Your task to perform on an android device: open app "Pinterest" (install if not already installed) Image 0: 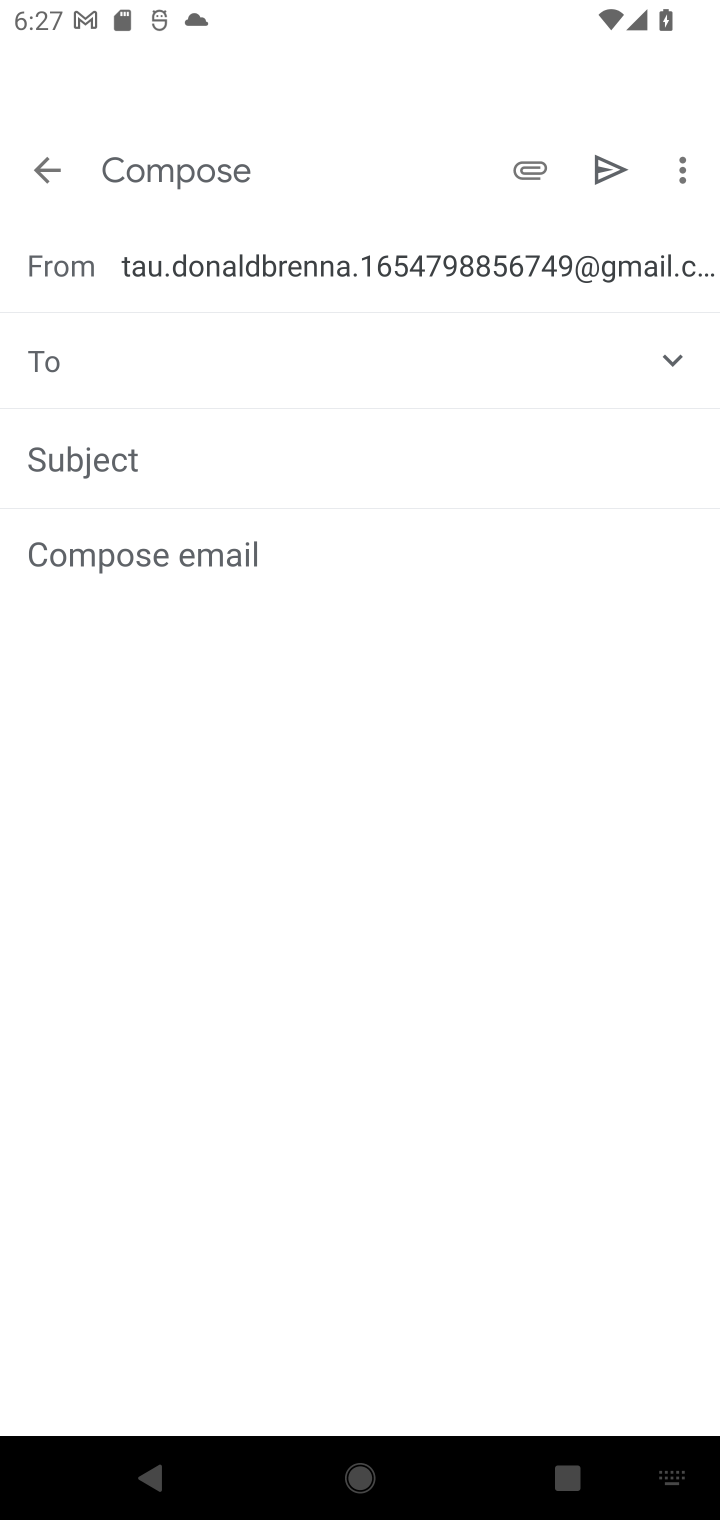
Step 0: press home button
Your task to perform on an android device: open app "Pinterest" (install if not already installed) Image 1: 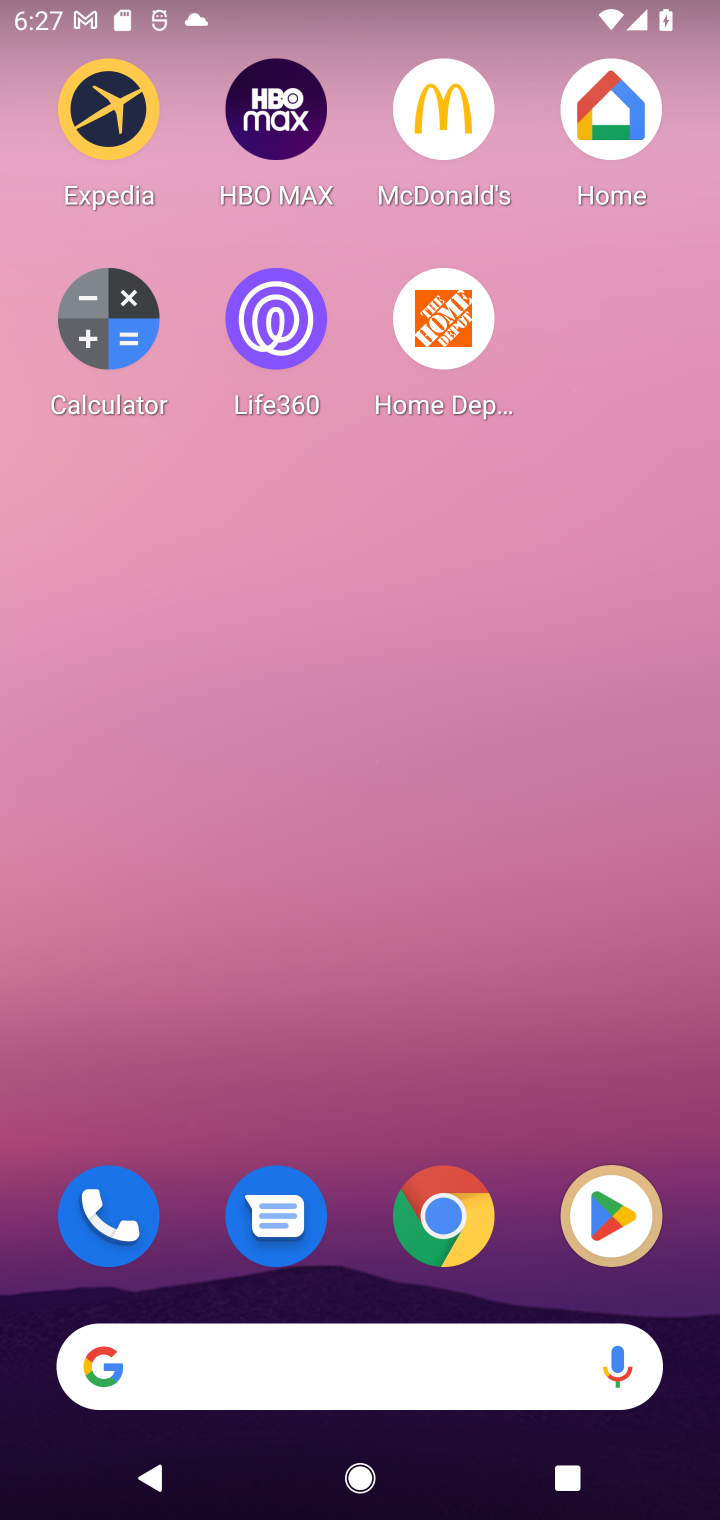
Step 1: drag from (288, 1292) to (312, 33)
Your task to perform on an android device: open app "Pinterest" (install if not already installed) Image 2: 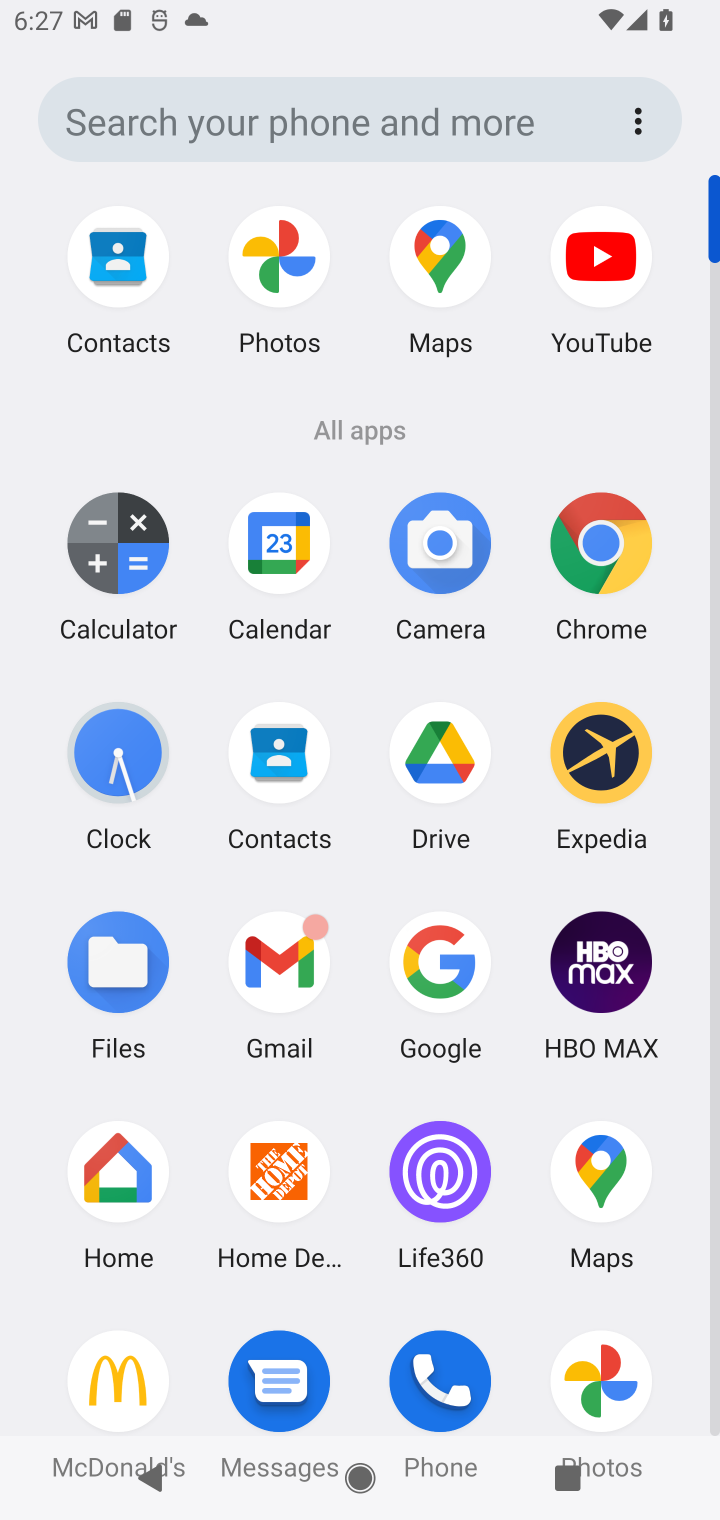
Step 2: drag from (203, 1142) to (203, 553)
Your task to perform on an android device: open app "Pinterest" (install if not already installed) Image 3: 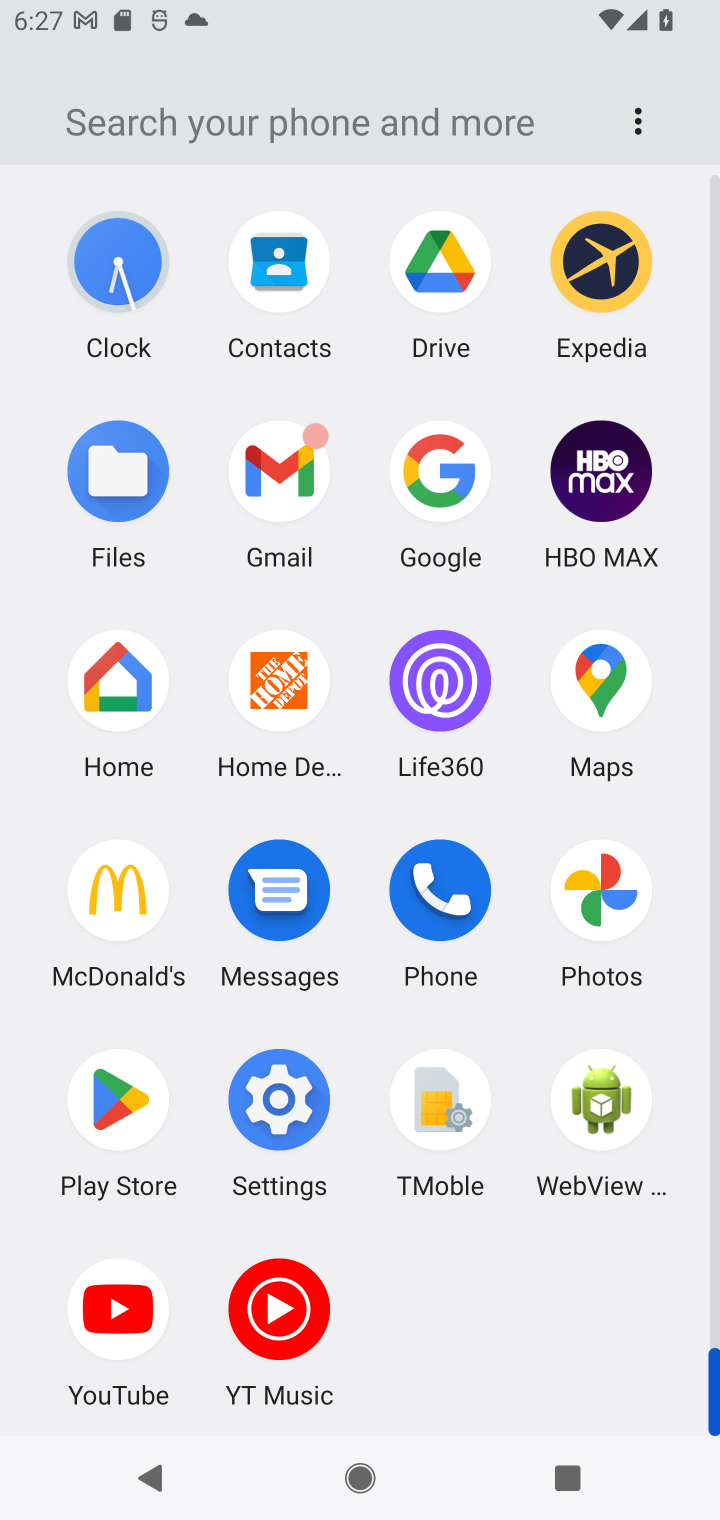
Step 3: click (76, 1087)
Your task to perform on an android device: open app "Pinterest" (install if not already installed) Image 4: 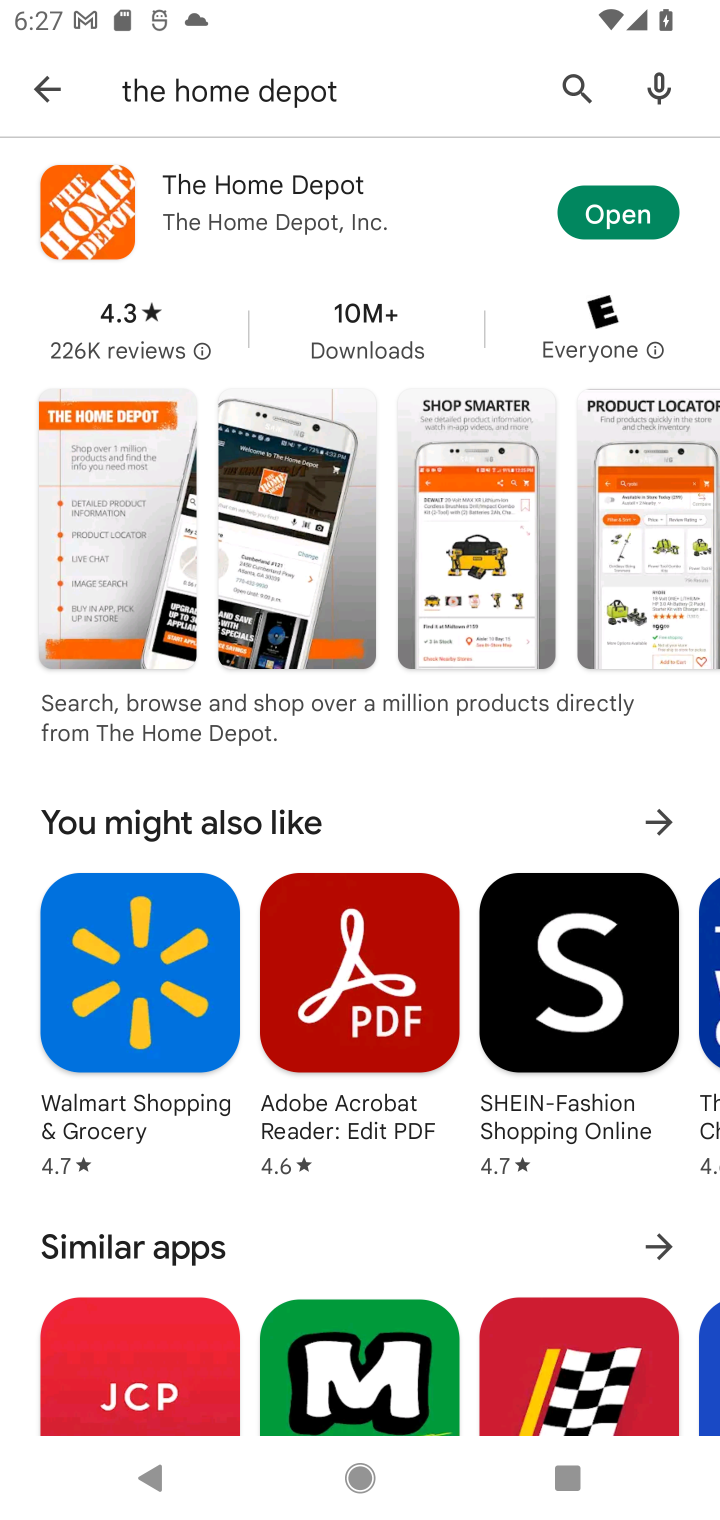
Step 4: click (568, 108)
Your task to perform on an android device: open app "Pinterest" (install if not already installed) Image 5: 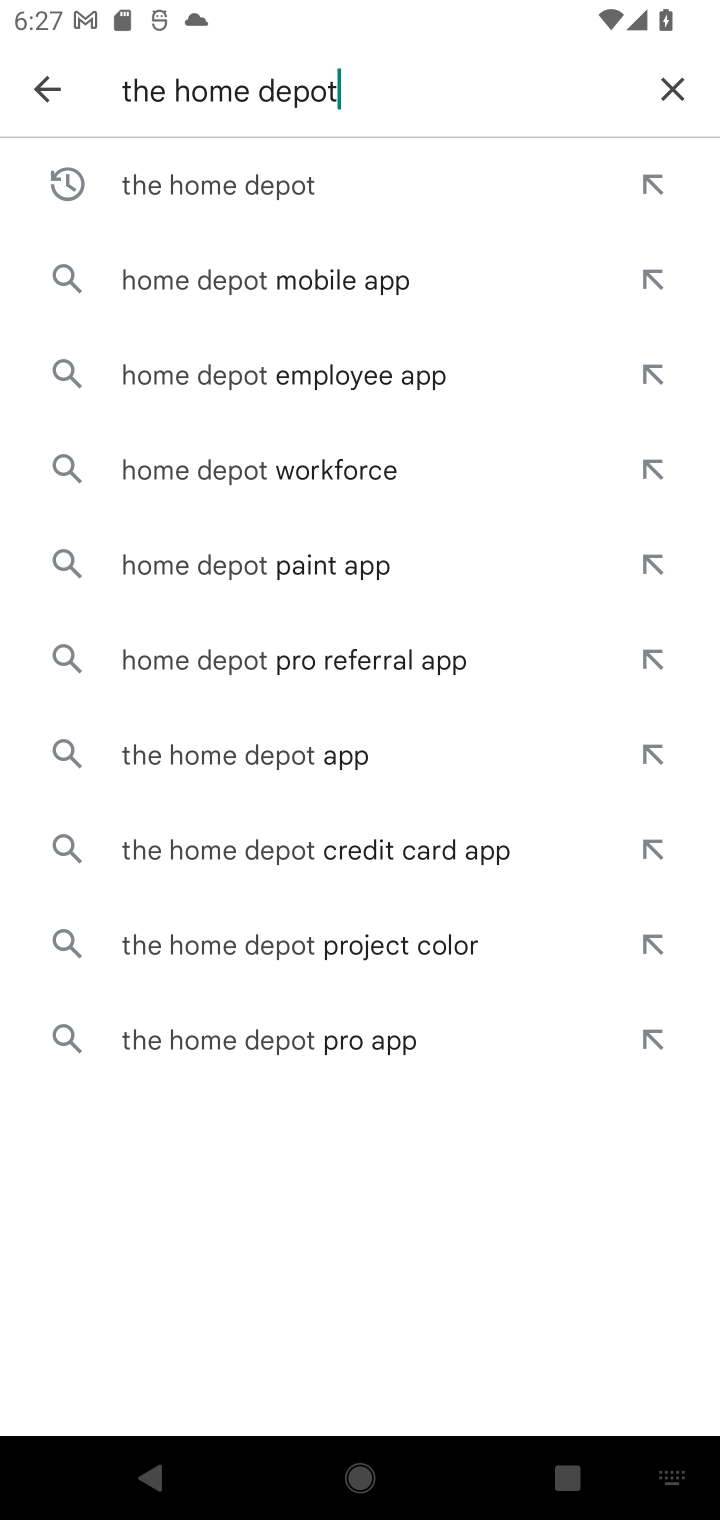
Step 5: click (663, 103)
Your task to perform on an android device: open app "Pinterest" (install if not already installed) Image 6: 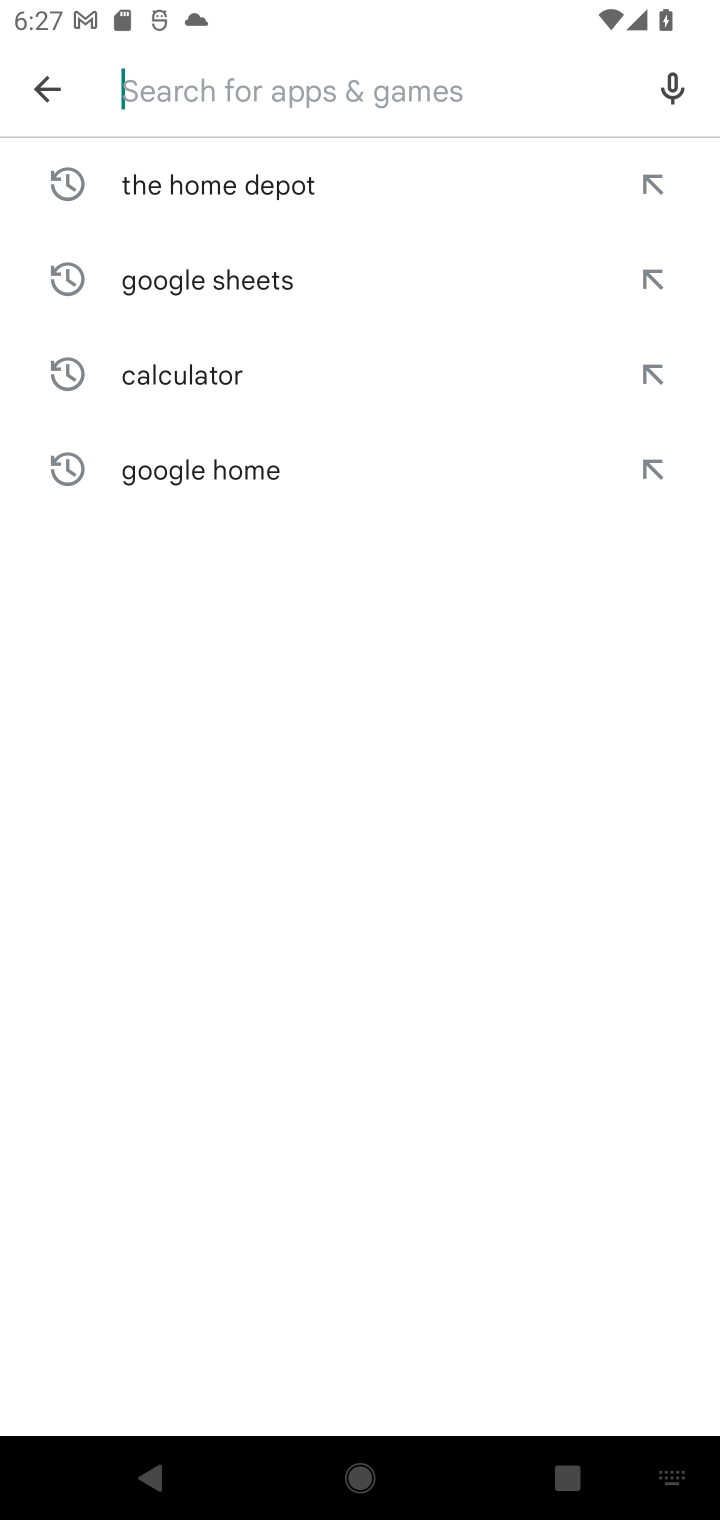
Step 6: type "Pinterest""
Your task to perform on an android device: open app "Pinterest" (install if not already installed) Image 7: 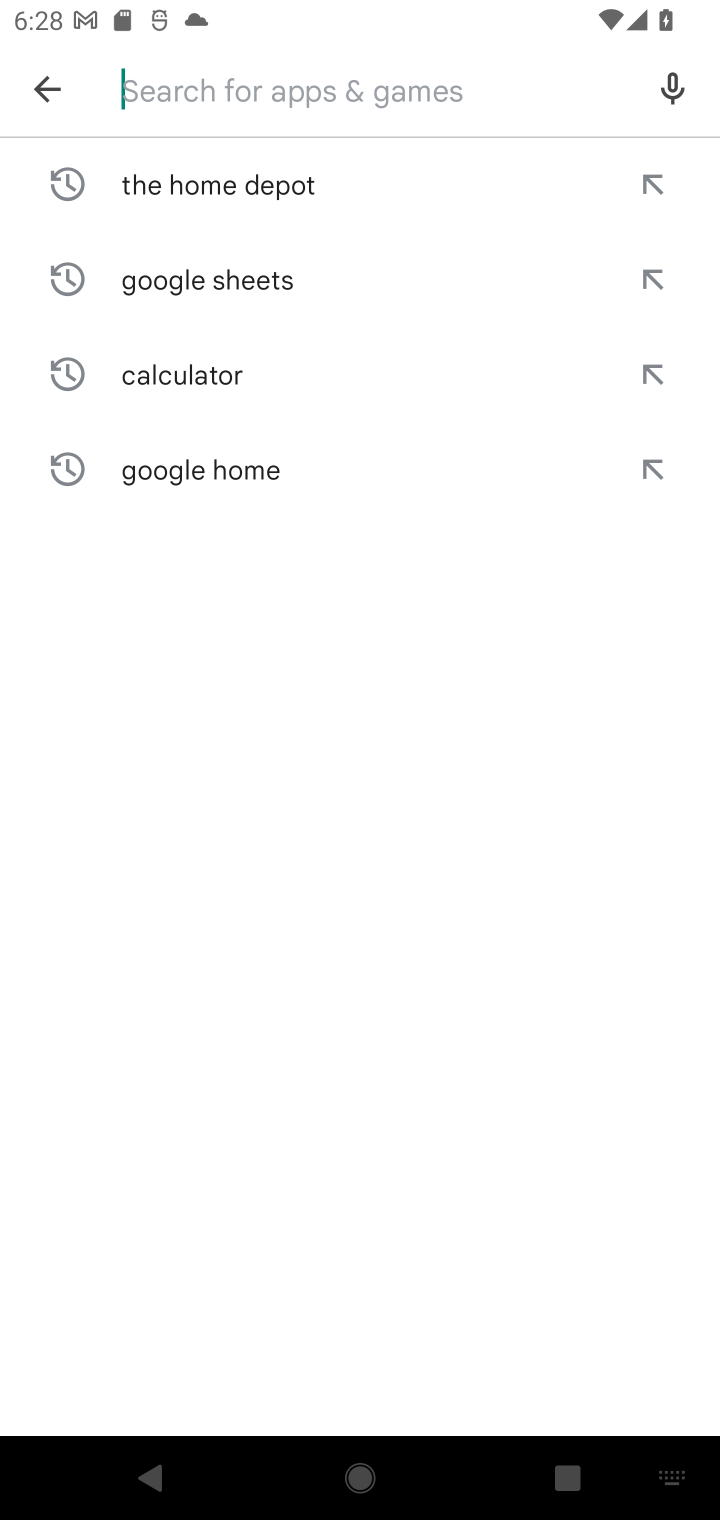
Step 7: task complete